Your task to perform on an android device: Go to accessibility settings Image 0: 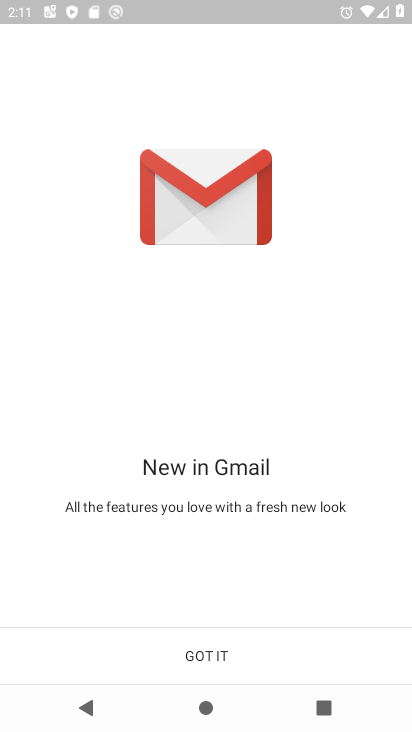
Step 0: press home button
Your task to perform on an android device: Go to accessibility settings Image 1: 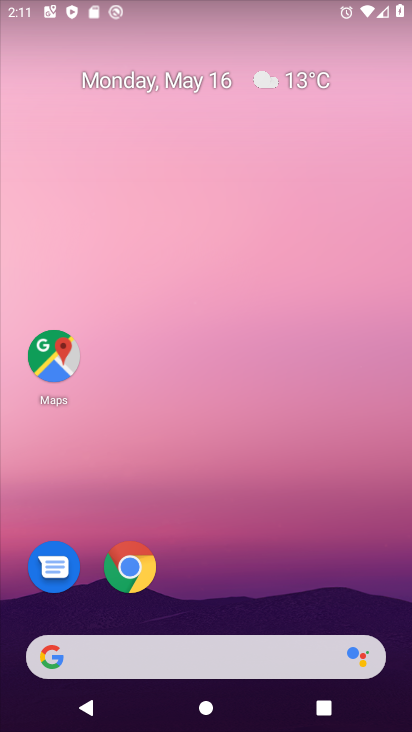
Step 1: drag from (296, 571) to (313, 8)
Your task to perform on an android device: Go to accessibility settings Image 2: 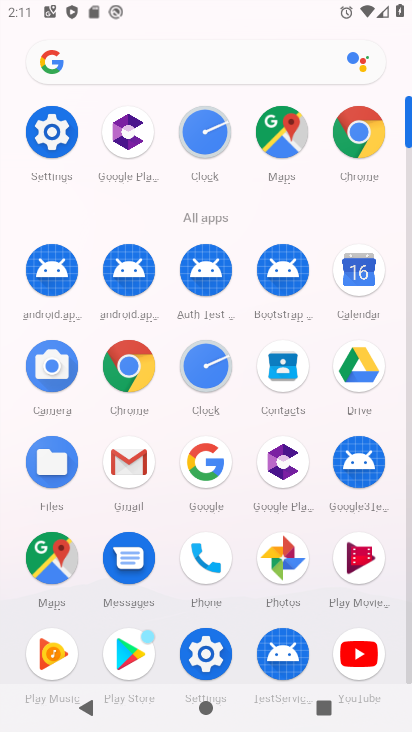
Step 2: click (42, 147)
Your task to perform on an android device: Go to accessibility settings Image 3: 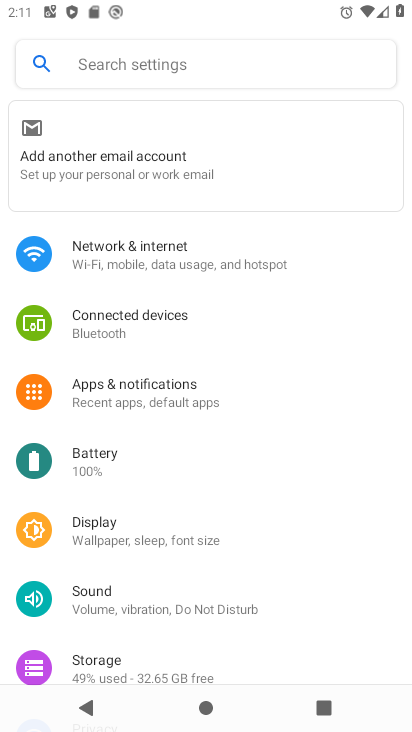
Step 3: drag from (126, 629) to (153, 74)
Your task to perform on an android device: Go to accessibility settings Image 4: 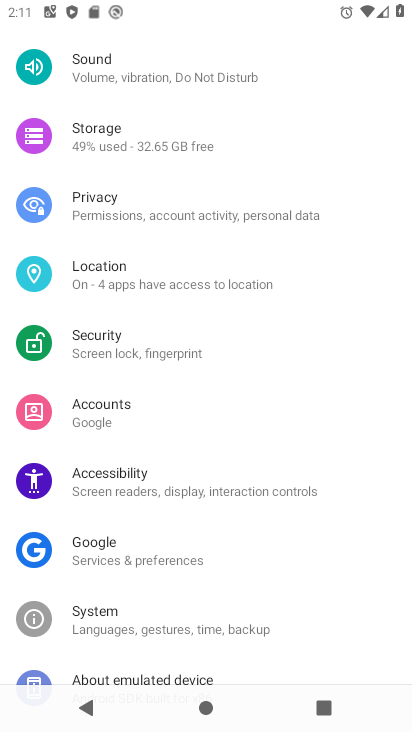
Step 4: click (183, 491)
Your task to perform on an android device: Go to accessibility settings Image 5: 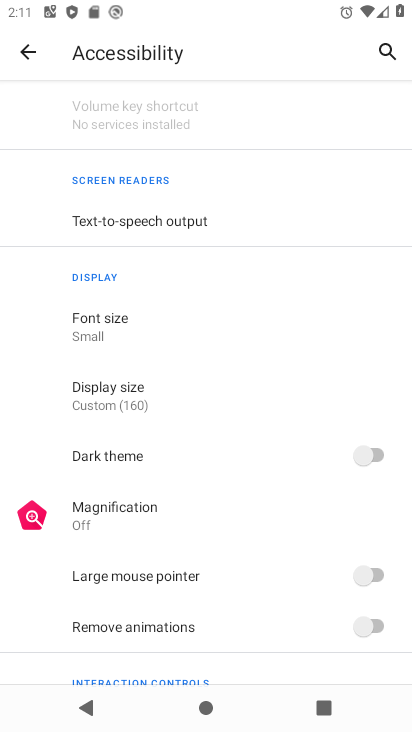
Step 5: task complete